Your task to perform on an android device: Check the weather Image 0: 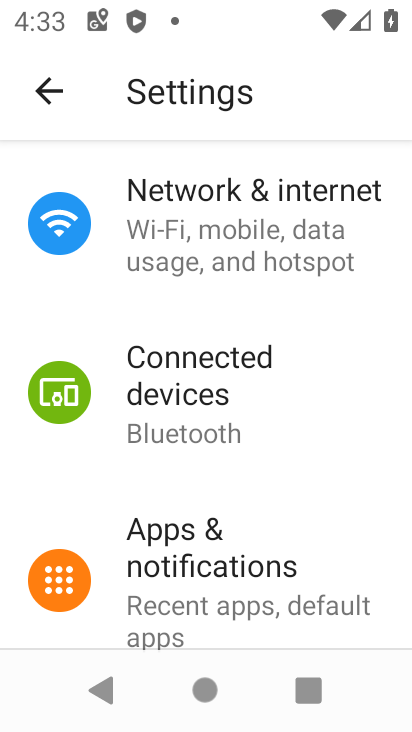
Step 0: press home button
Your task to perform on an android device: Check the weather Image 1: 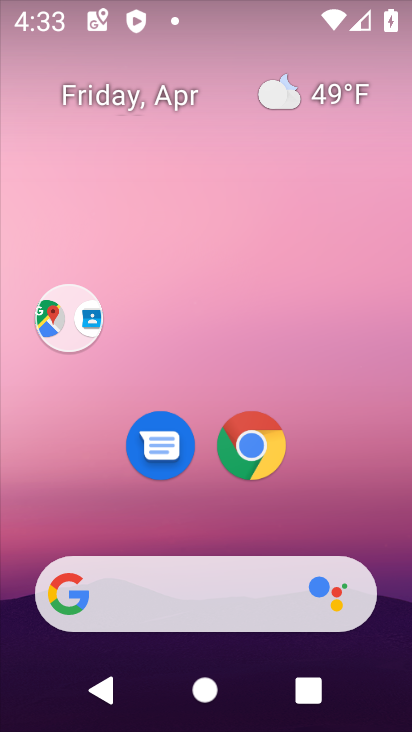
Step 1: drag from (328, 491) to (355, 100)
Your task to perform on an android device: Check the weather Image 2: 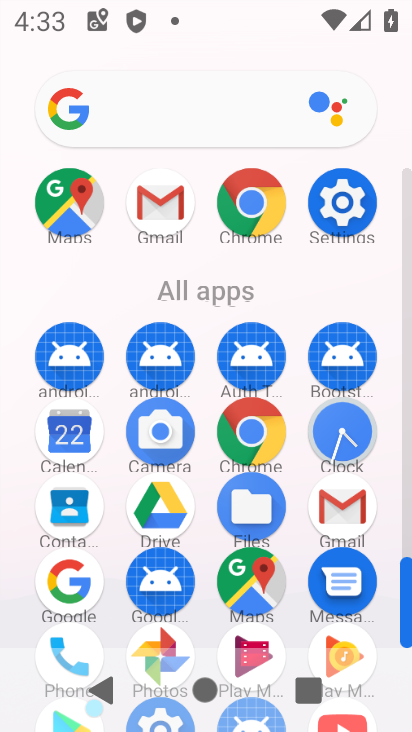
Step 2: click (262, 430)
Your task to perform on an android device: Check the weather Image 3: 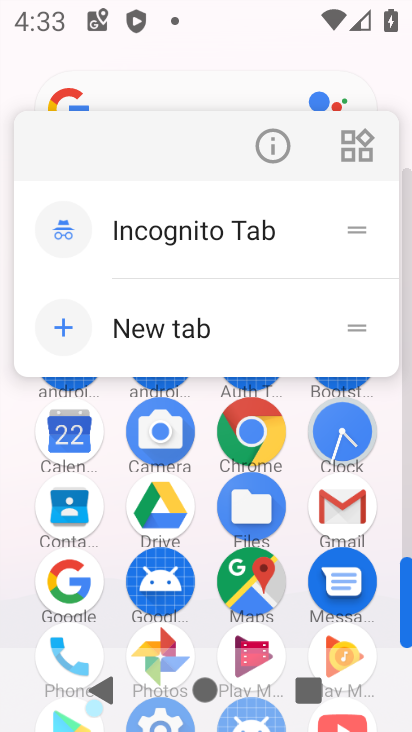
Step 3: click (252, 441)
Your task to perform on an android device: Check the weather Image 4: 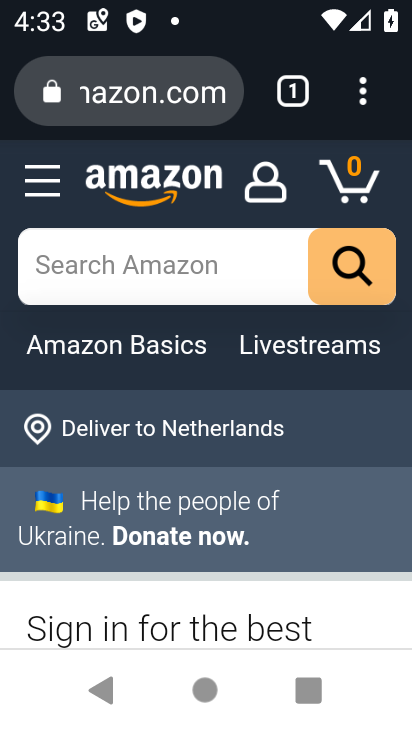
Step 4: click (215, 95)
Your task to perform on an android device: Check the weather Image 5: 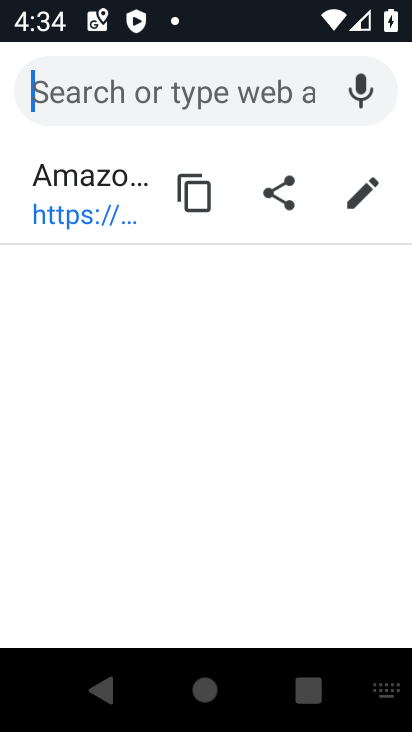
Step 5: type "weather"
Your task to perform on an android device: Check the weather Image 6: 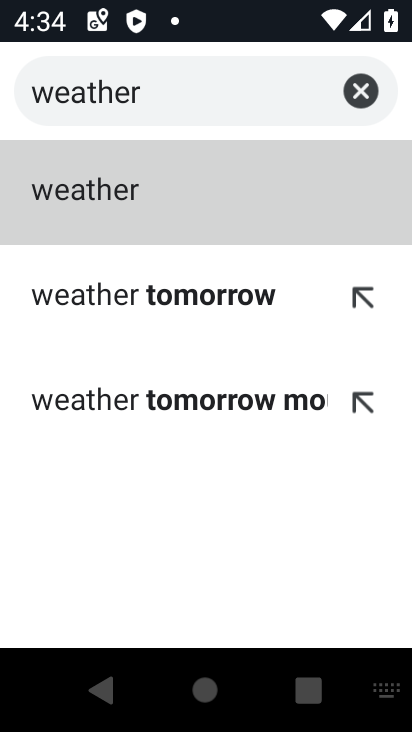
Step 6: click (79, 190)
Your task to perform on an android device: Check the weather Image 7: 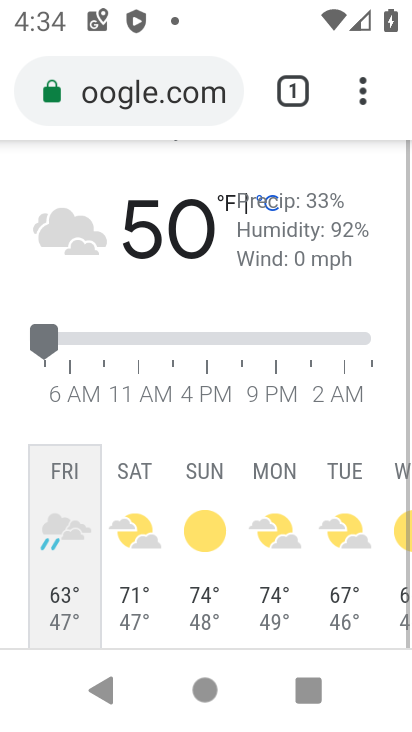
Step 7: task complete